Your task to perform on an android device: refresh tabs in the chrome app Image 0: 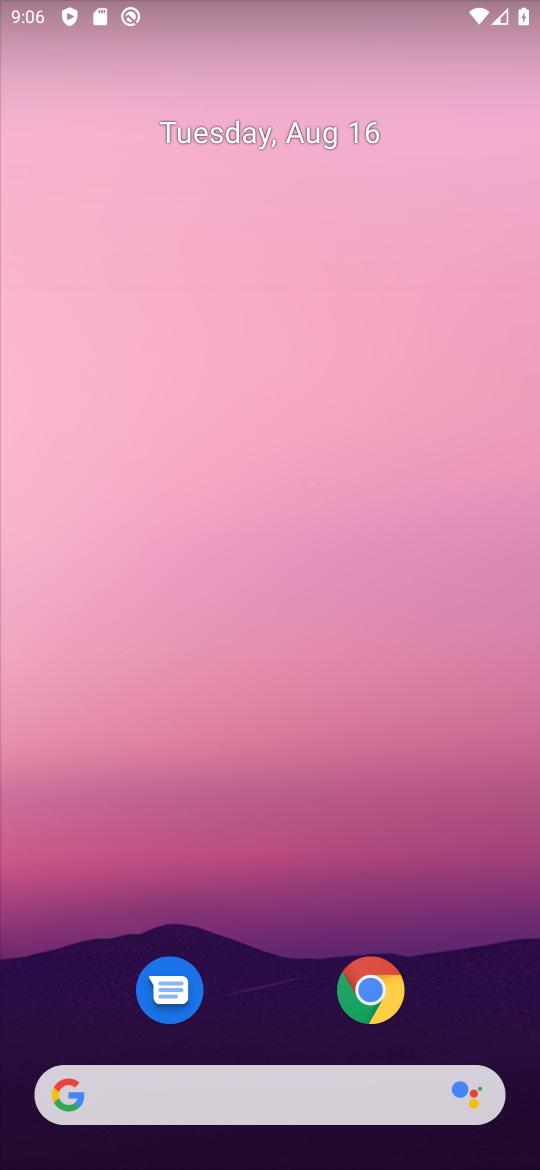
Step 0: click (361, 979)
Your task to perform on an android device: refresh tabs in the chrome app Image 1: 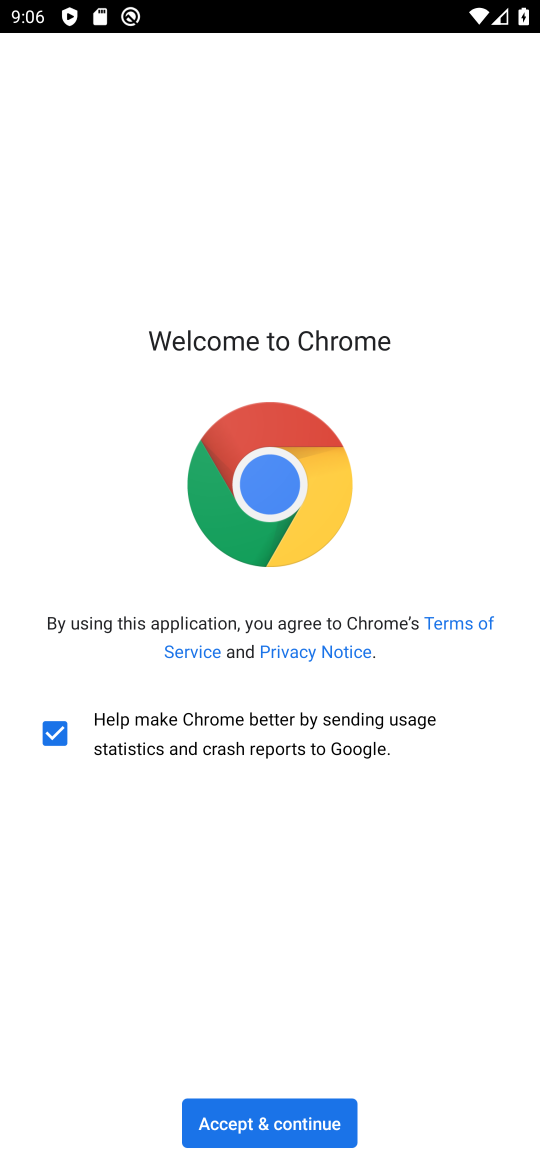
Step 1: click (297, 1122)
Your task to perform on an android device: refresh tabs in the chrome app Image 2: 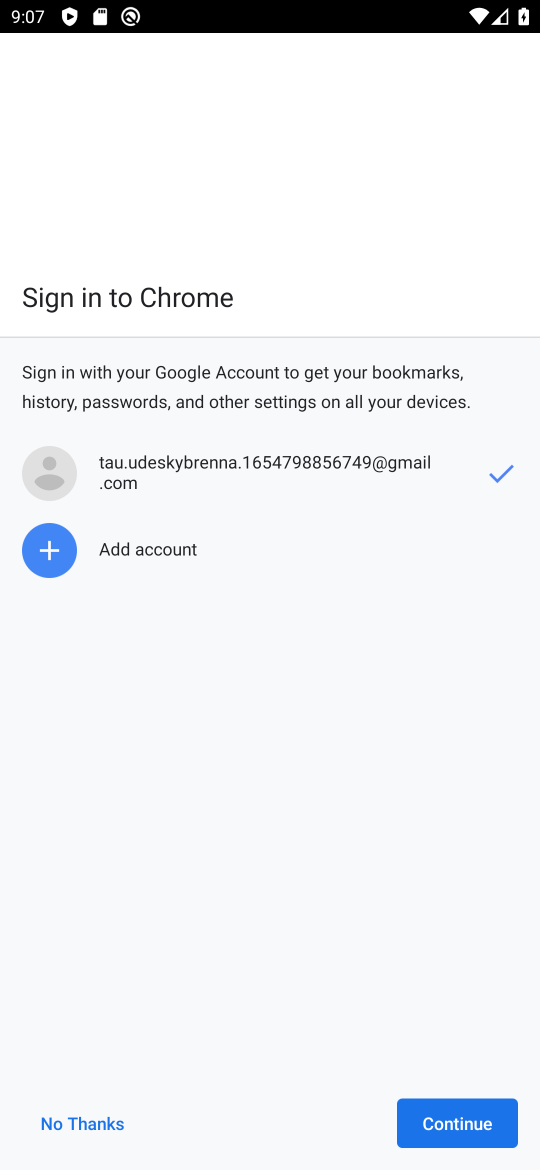
Step 2: click (448, 1129)
Your task to perform on an android device: refresh tabs in the chrome app Image 3: 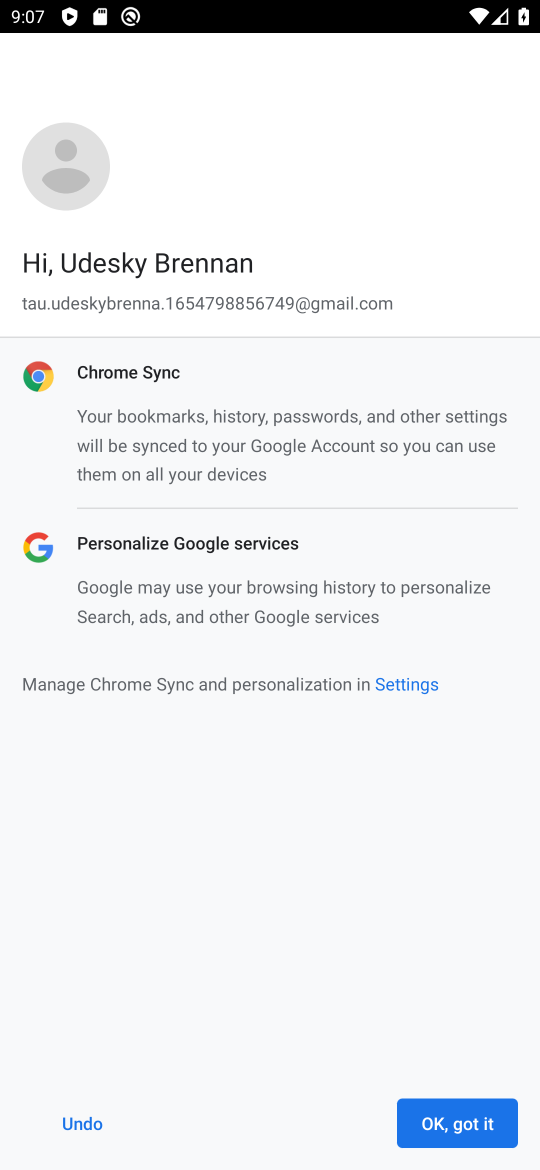
Step 3: click (448, 1129)
Your task to perform on an android device: refresh tabs in the chrome app Image 4: 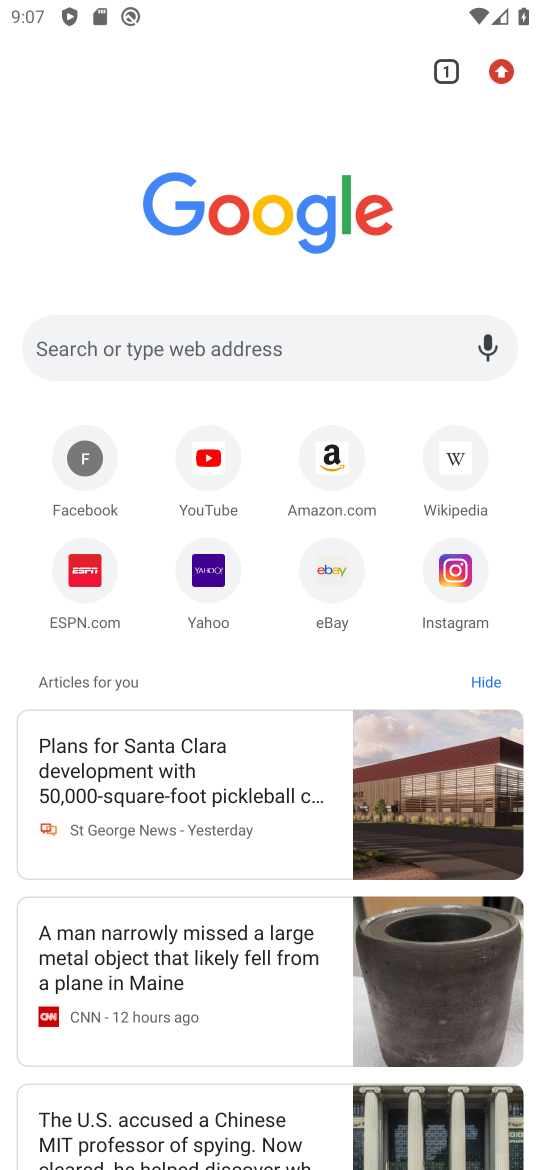
Step 4: click (508, 70)
Your task to perform on an android device: refresh tabs in the chrome app Image 5: 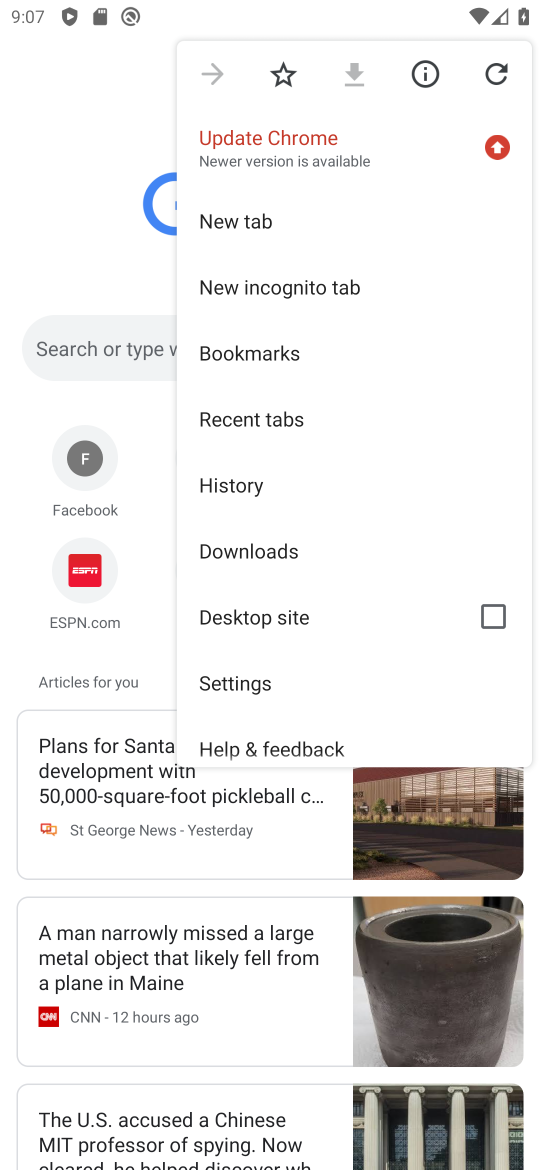
Step 5: click (497, 71)
Your task to perform on an android device: refresh tabs in the chrome app Image 6: 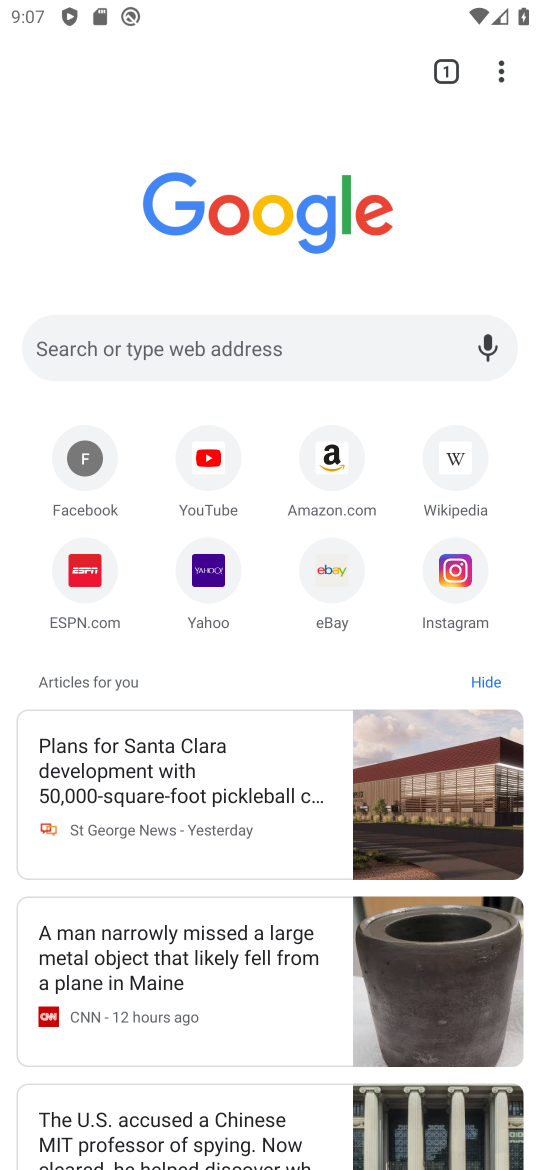
Step 6: task complete